Your task to perform on an android device: Open Google Chrome Image 0: 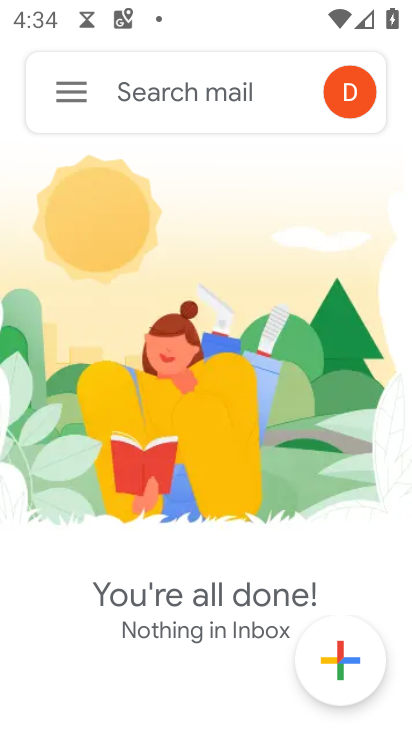
Step 0: press home button
Your task to perform on an android device: Open Google Chrome Image 1: 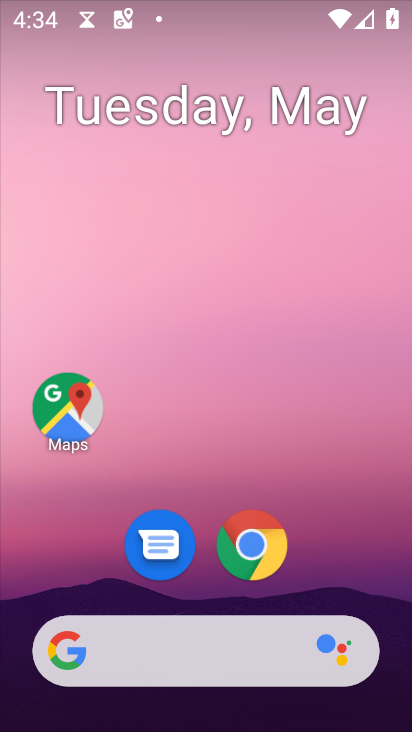
Step 1: click (252, 550)
Your task to perform on an android device: Open Google Chrome Image 2: 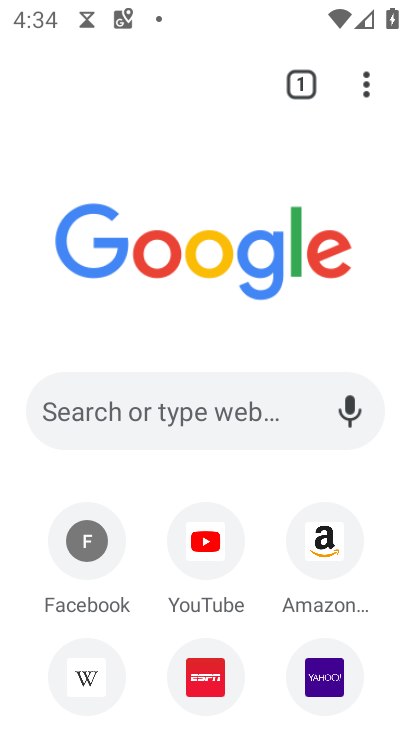
Step 2: task complete